Your task to perform on an android device: Show me recent news Image 0: 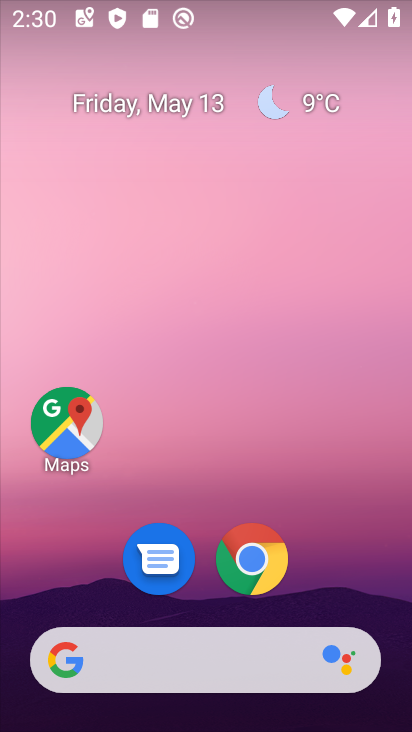
Step 0: drag from (309, 509) to (295, 140)
Your task to perform on an android device: Show me recent news Image 1: 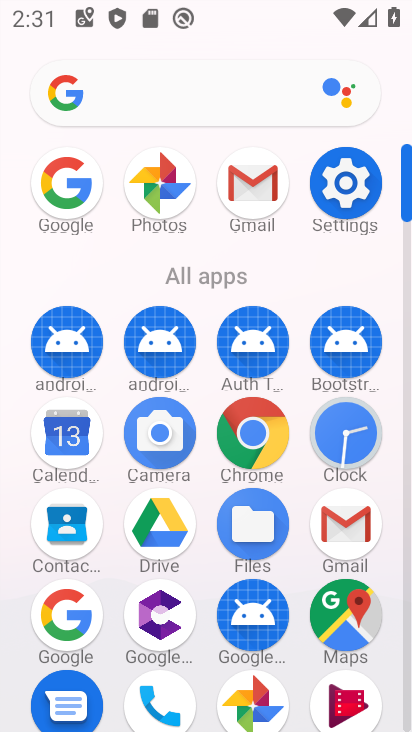
Step 1: click (64, 198)
Your task to perform on an android device: Show me recent news Image 2: 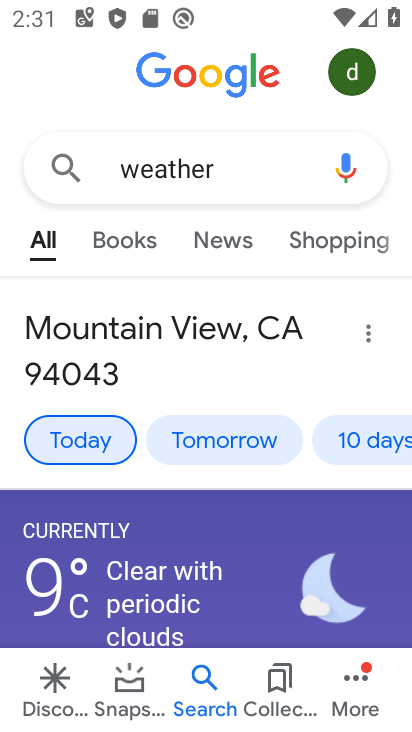
Step 2: click (237, 168)
Your task to perform on an android device: Show me recent news Image 3: 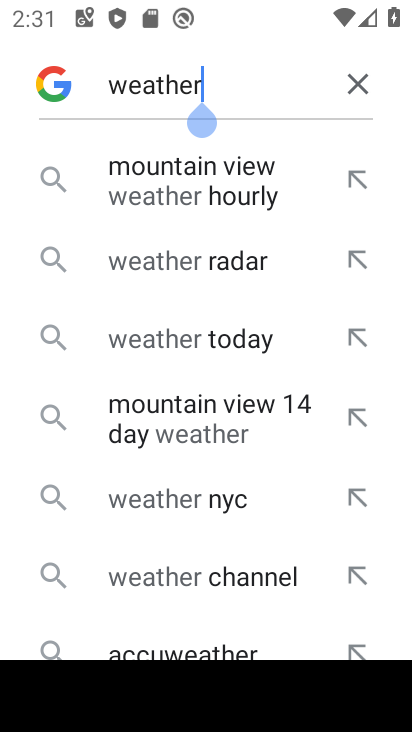
Step 3: click (364, 83)
Your task to perform on an android device: Show me recent news Image 4: 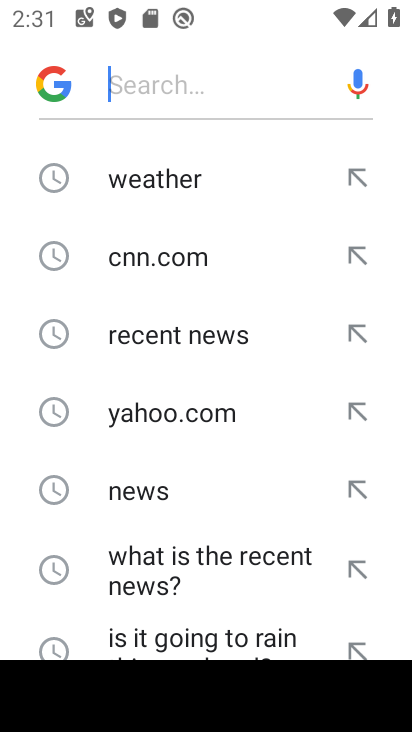
Step 4: click (210, 358)
Your task to perform on an android device: Show me recent news Image 5: 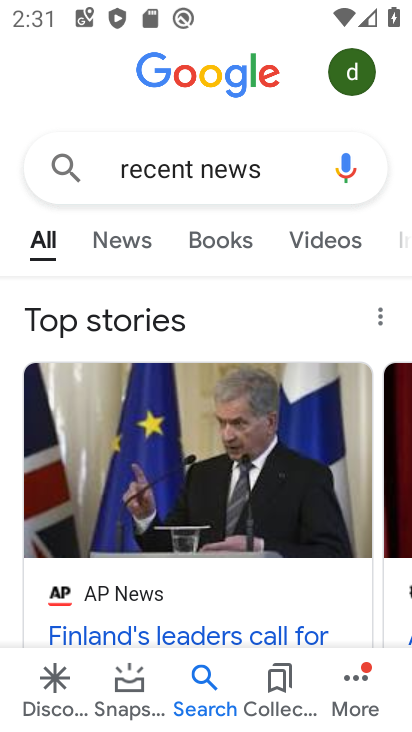
Step 5: task complete